Your task to perform on an android device: check google app version Image 0: 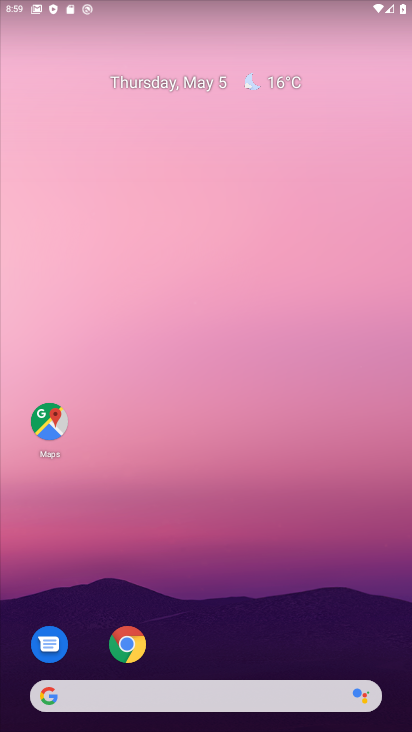
Step 0: drag from (375, 622) to (375, 170)
Your task to perform on an android device: check google app version Image 1: 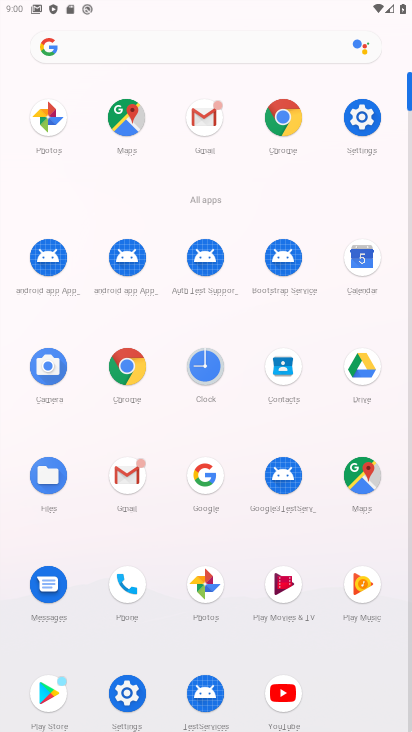
Step 1: click (208, 475)
Your task to perform on an android device: check google app version Image 2: 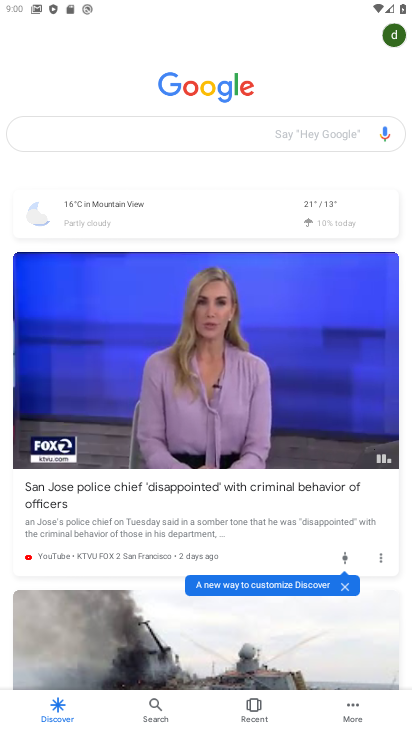
Step 2: click (401, 36)
Your task to perform on an android device: check google app version Image 3: 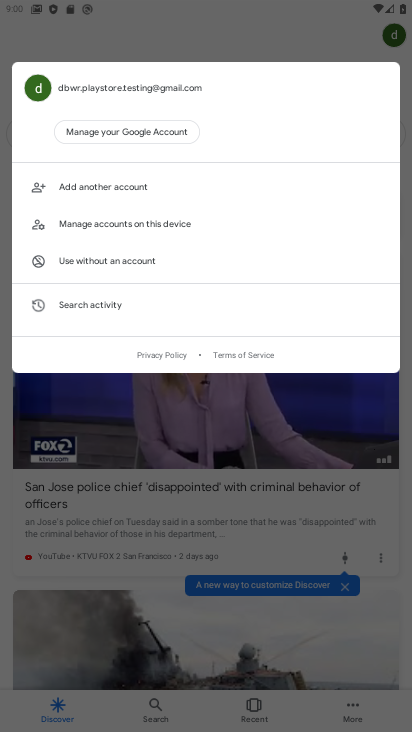
Step 3: click (354, 721)
Your task to perform on an android device: check google app version Image 4: 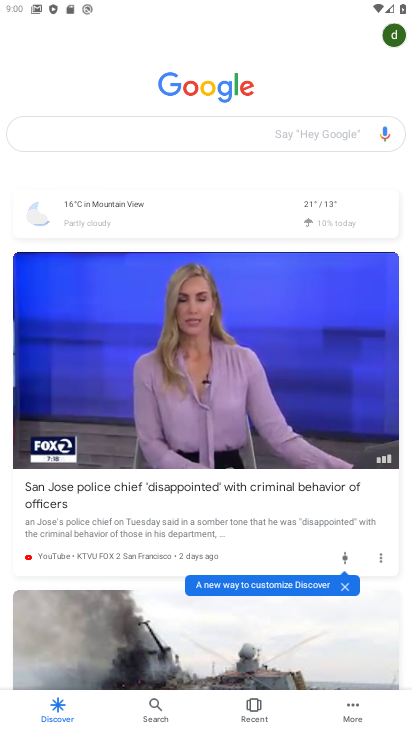
Step 4: click (351, 712)
Your task to perform on an android device: check google app version Image 5: 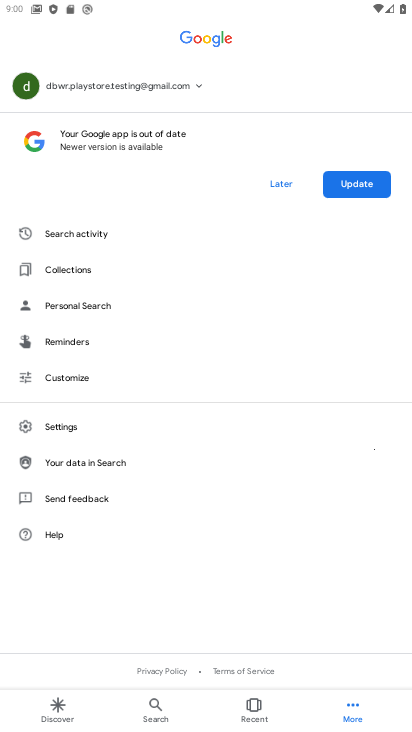
Step 5: click (72, 426)
Your task to perform on an android device: check google app version Image 6: 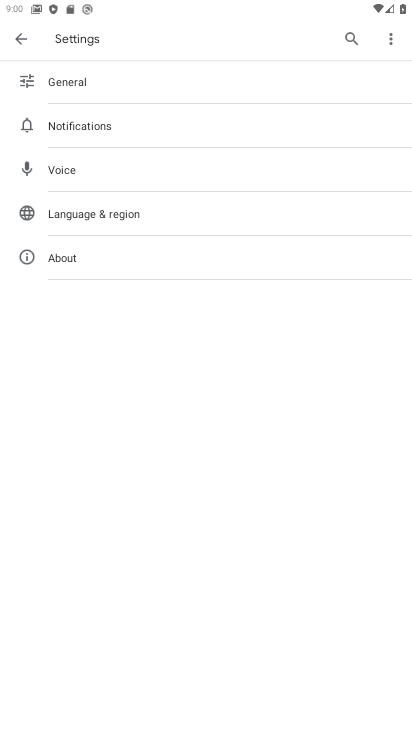
Step 6: click (78, 259)
Your task to perform on an android device: check google app version Image 7: 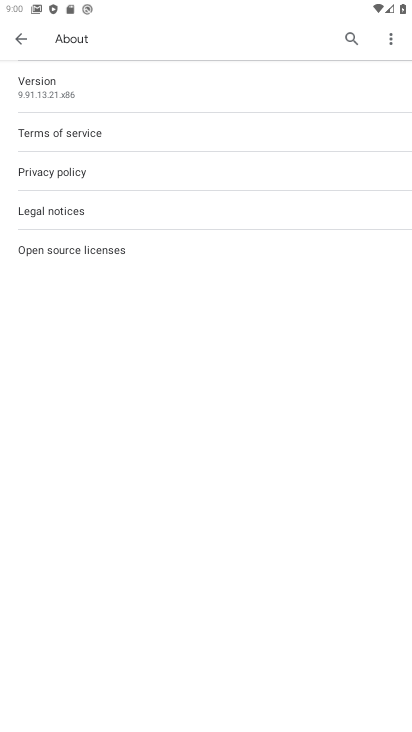
Step 7: task complete